Your task to perform on an android device: Set the phone to "Do not disturb". Image 0: 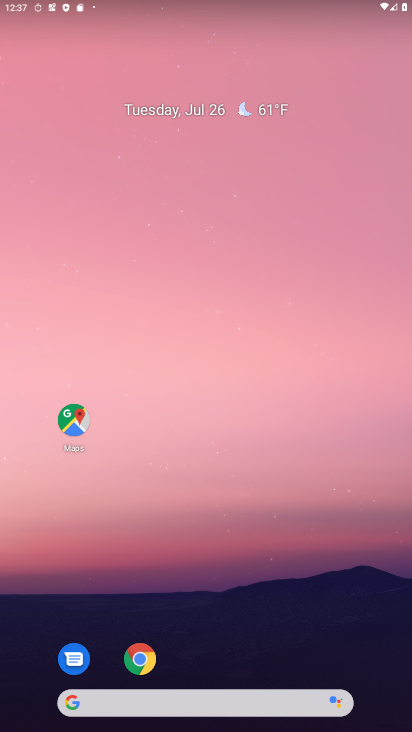
Step 0: drag from (39, 679) to (209, 188)
Your task to perform on an android device: Set the phone to "Do not disturb". Image 1: 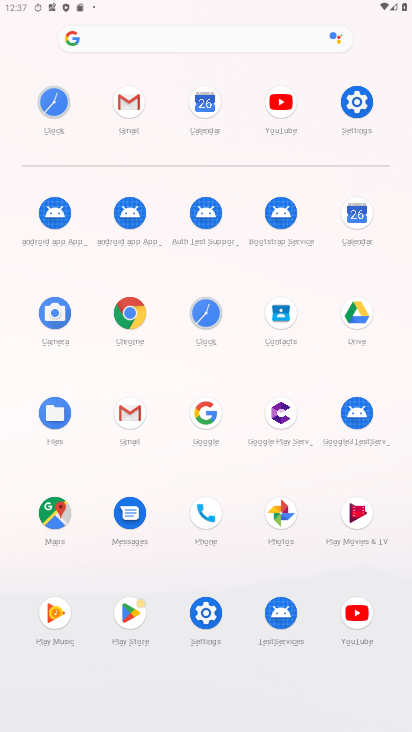
Step 1: click (219, 616)
Your task to perform on an android device: Set the phone to "Do not disturb". Image 2: 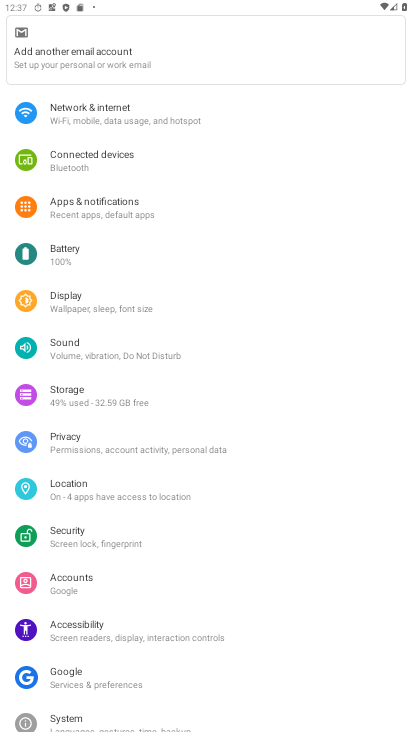
Step 2: click (96, 345)
Your task to perform on an android device: Set the phone to "Do not disturb". Image 3: 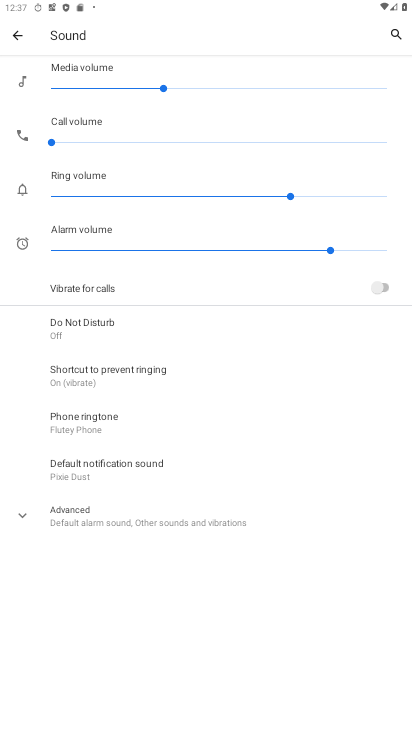
Step 3: click (105, 320)
Your task to perform on an android device: Set the phone to "Do not disturb". Image 4: 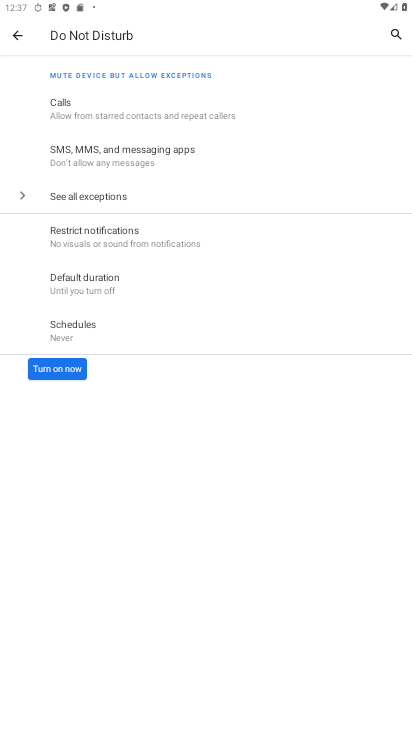
Step 4: click (64, 371)
Your task to perform on an android device: Set the phone to "Do not disturb". Image 5: 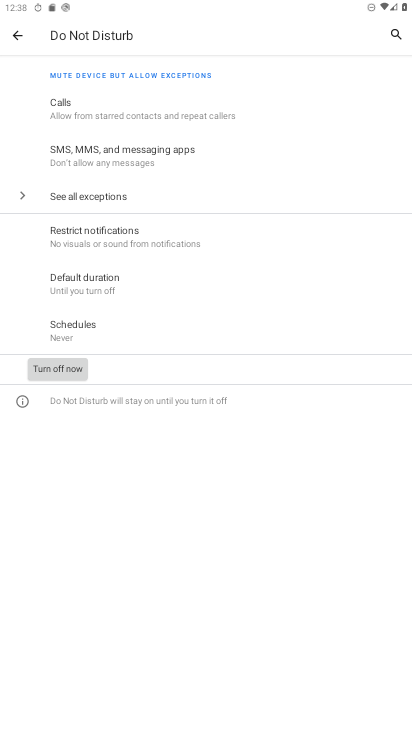
Step 5: task complete